Your task to perform on an android device: uninstall "Facebook Lite" Image 0: 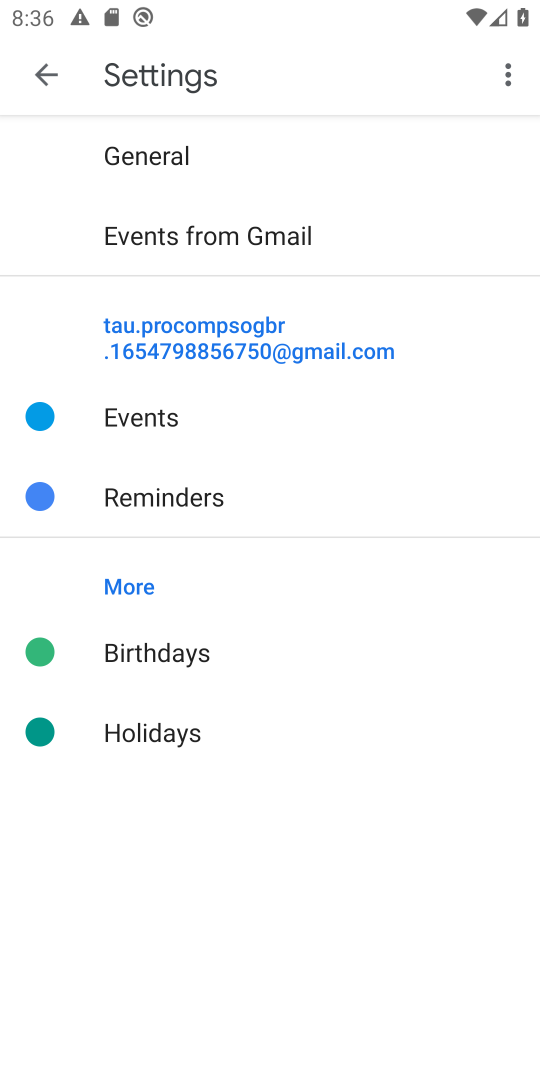
Step 0: press home button
Your task to perform on an android device: uninstall "Facebook Lite" Image 1: 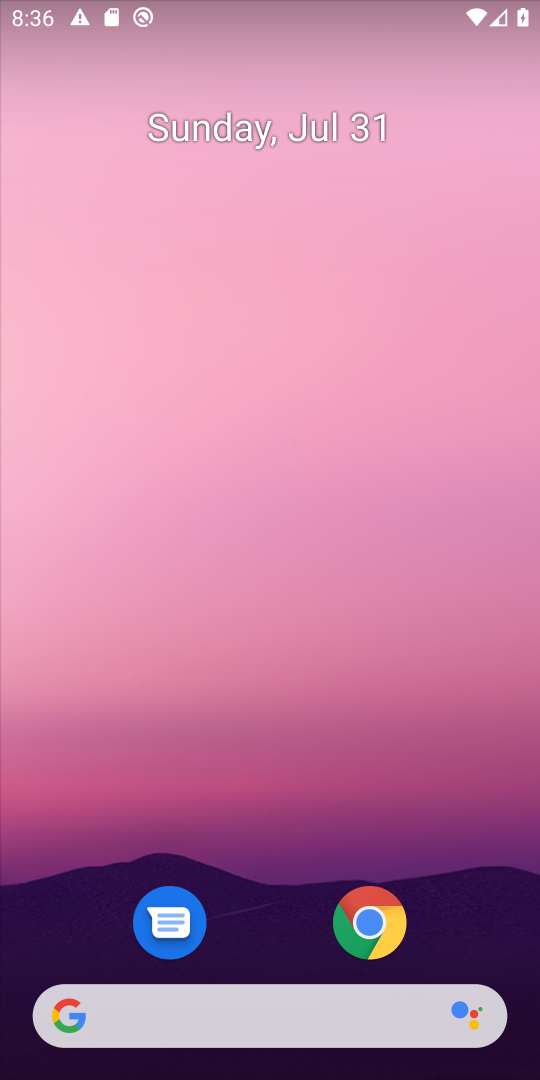
Step 1: drag from (296, 1041) to (306, 208)
Your task to perform on an android device: uninstall "Facebook Lite" Image 2: 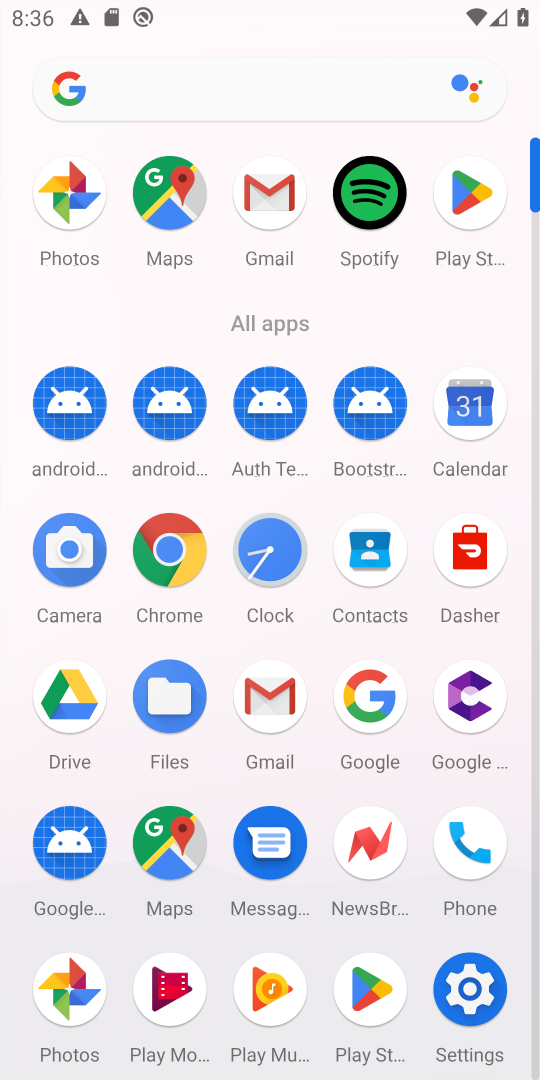
Step 2: click (366, 978)
Your task to perform on an android device: uninstall "Facebook Lite" Image 3: 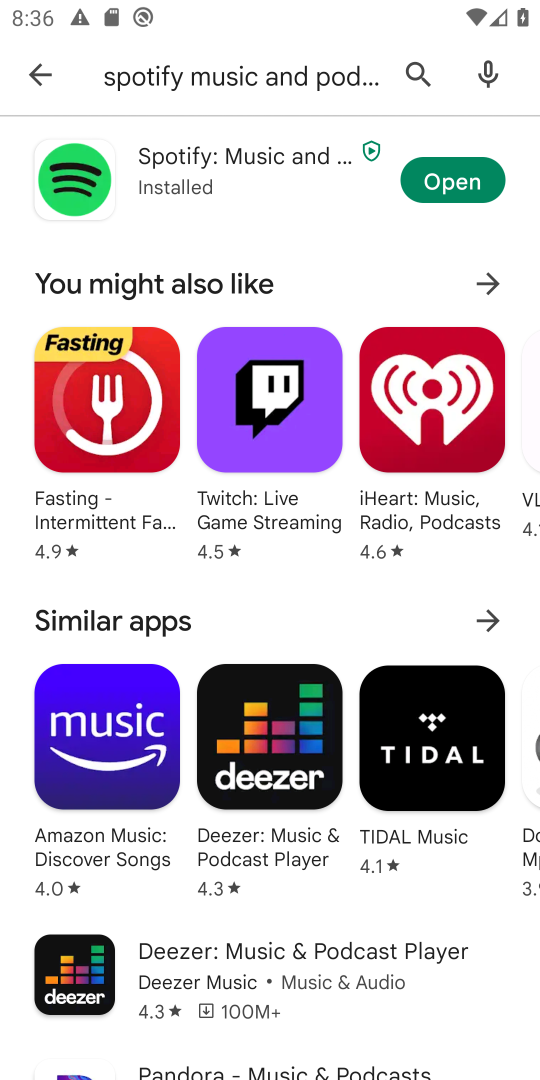
Step 3: click (416, 65)
Your task to perform on an android device: uninstall "Facebook Lite" Image 4: 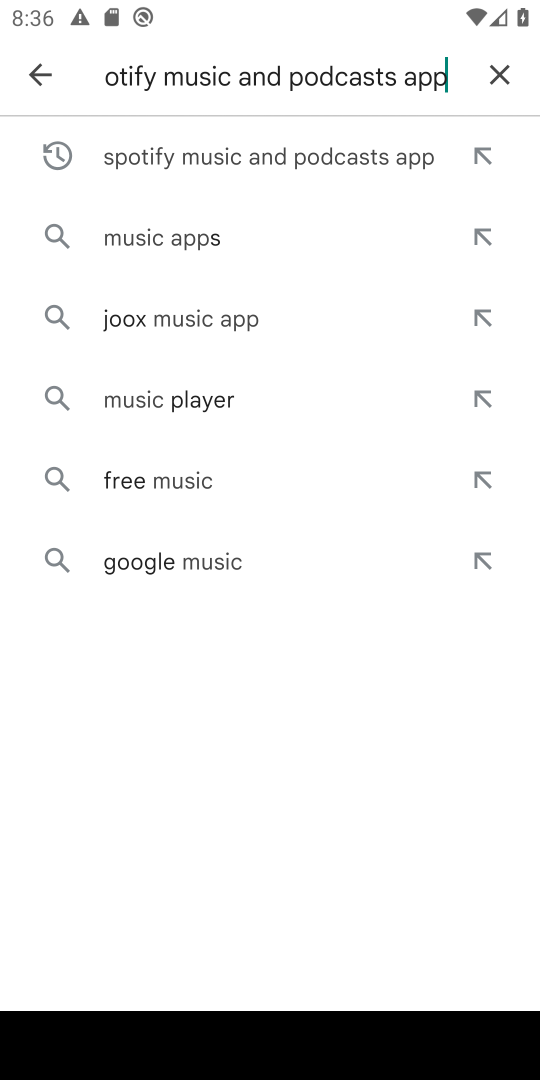
Step 4: click (500, 75)
Your task to perform on an android device: uninstall "Facebook Lite" Image 5: 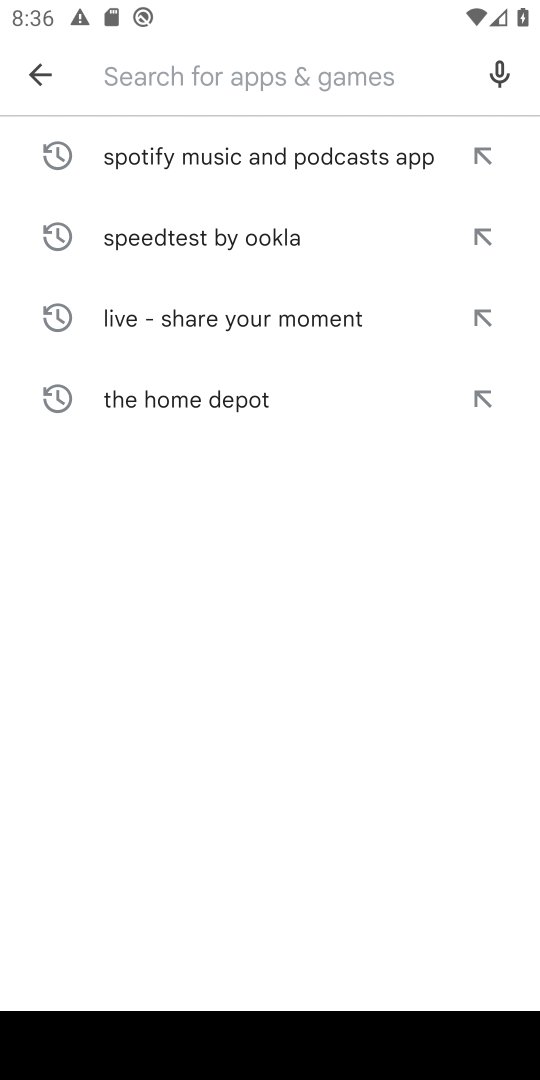
Step 5: type "Facebook Lite"
Your task to perform on an android device: uninstall "Facebook Lite" Image 6: 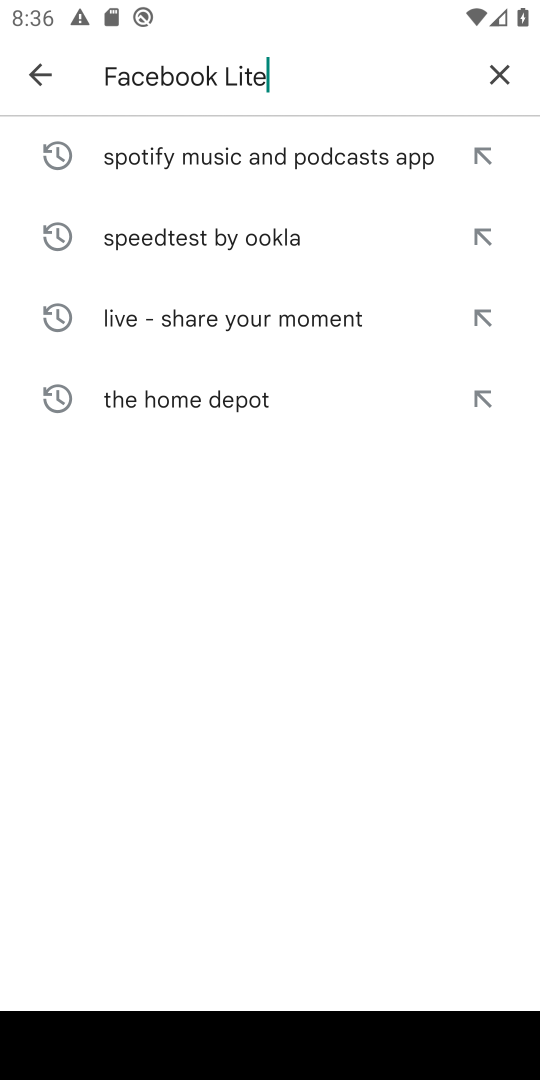
Step 6: type ""
Your task to perform on an android device: uninstall "Facebook Lite" Image 7: 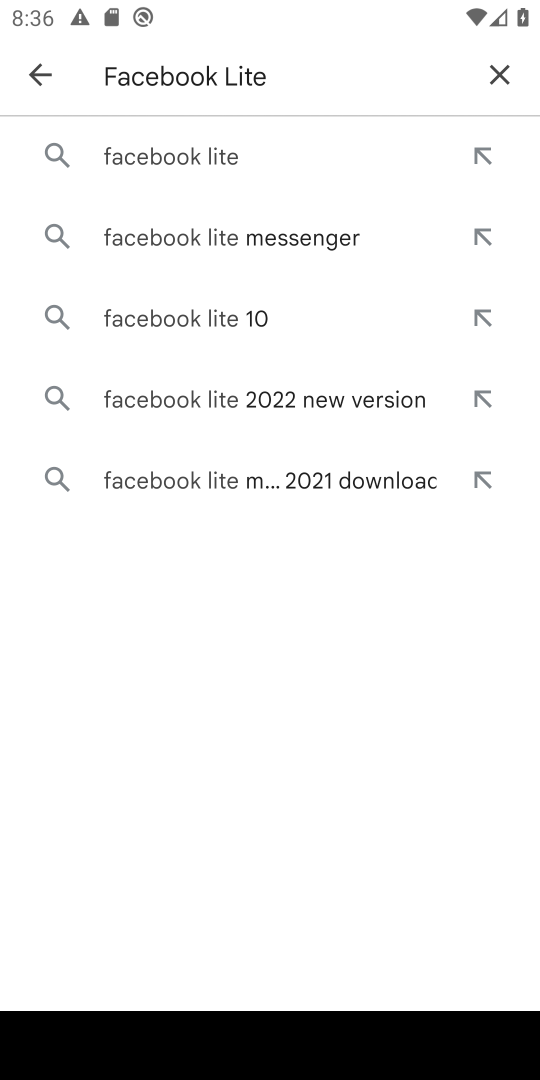
Step 7: click (176, 157)
Your task to perform on an android device: uninstall "Facebook Lite" Image 8: 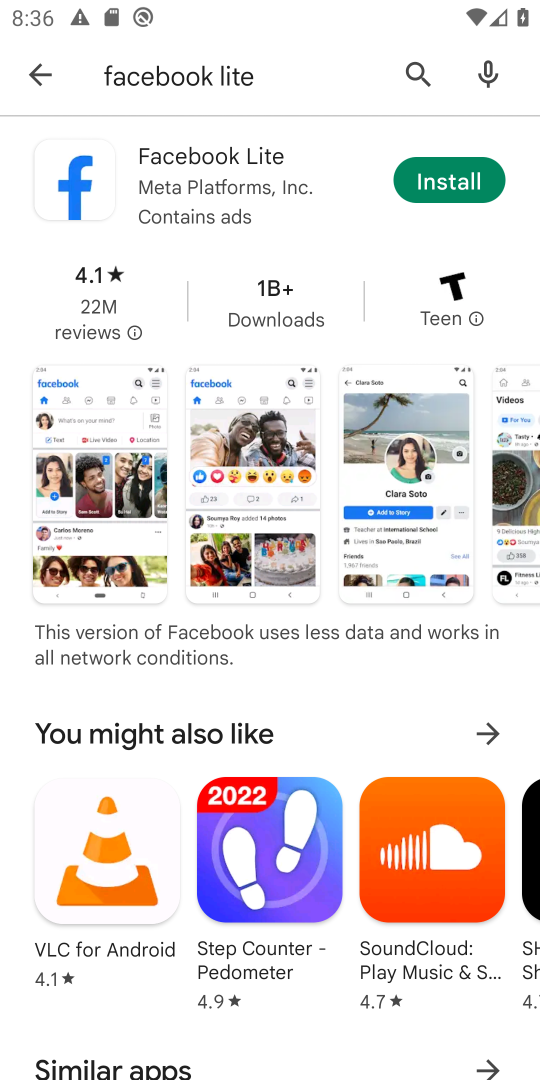
Step 8: click (218, 174)
Your task to perform on an android device: uninstall "Facebook Lite" Image 9: 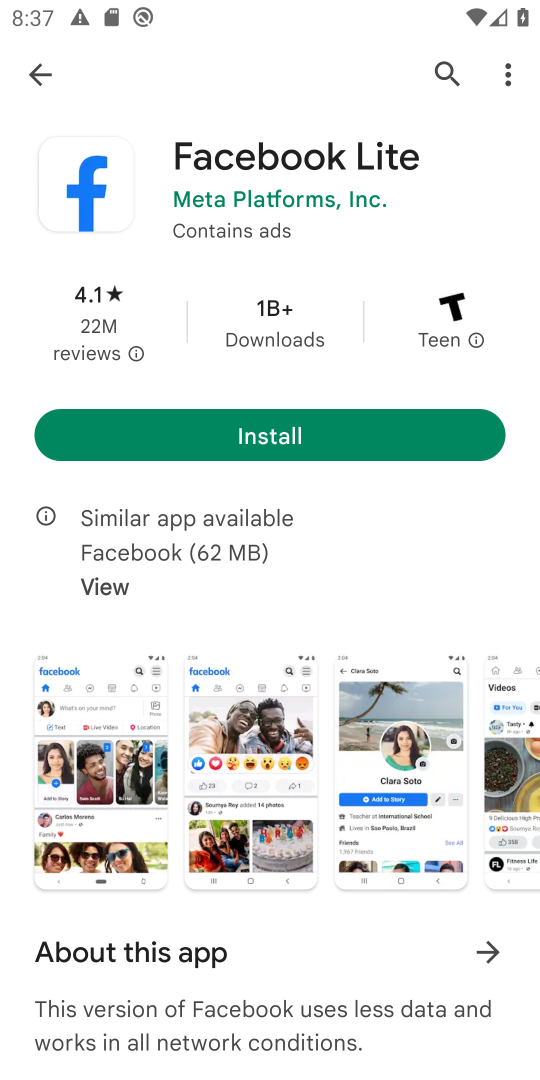
Step 9: task complete